Your task to perform on an android device: change keyboard looks Image 0: 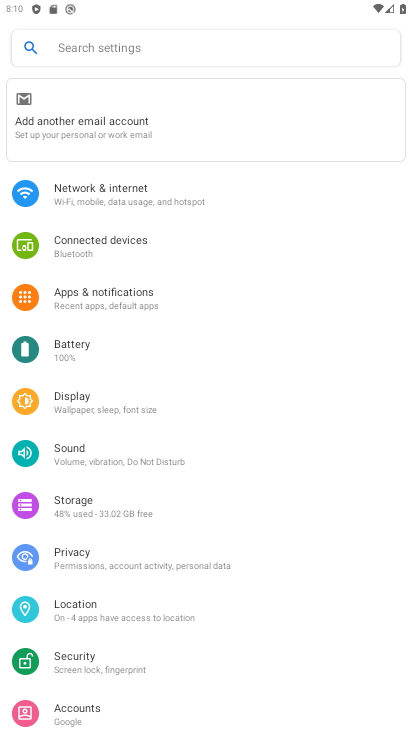
Step 0: drag from (283, 605) to (263, 119)
Your task to perform on an android device: change keyboard looks Image 1: 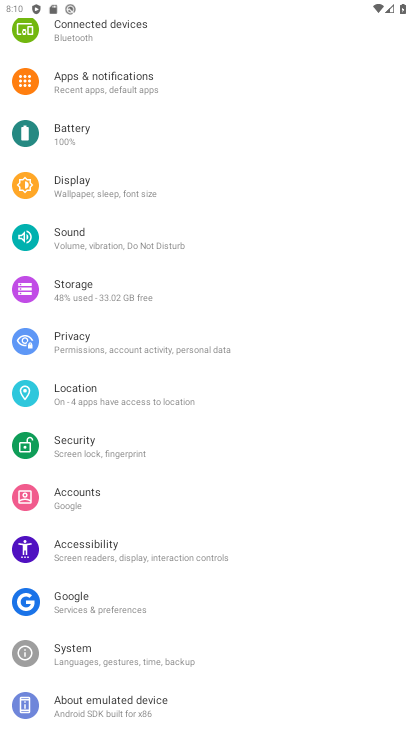
Step 1: click (133, 655)
Your task to perform on an android device: change keyboard looks Image 2: 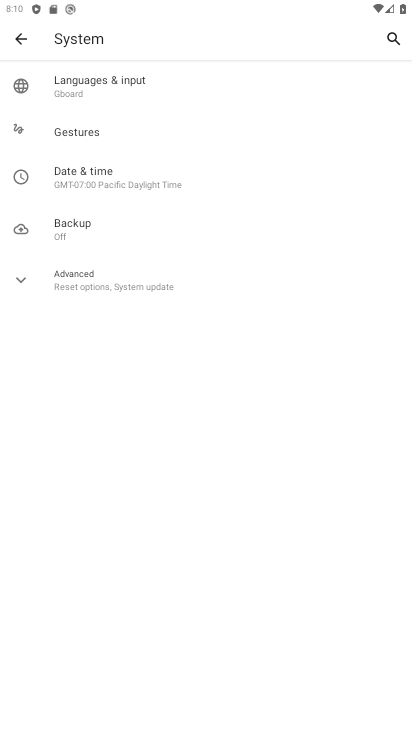
Step 2: click (29, 279)
Your task to perform on an android device: change keyboard looks Image 3: 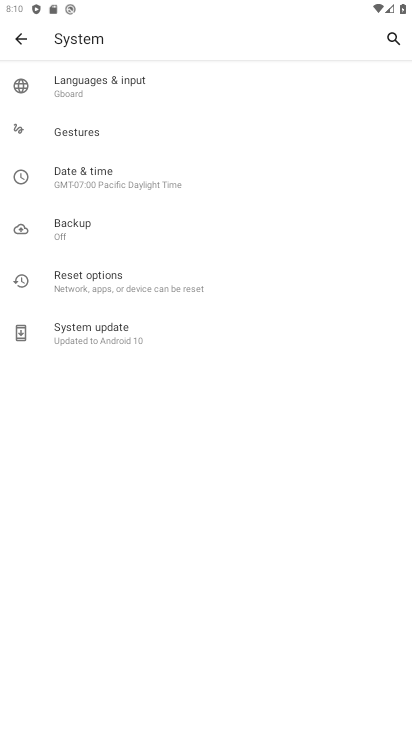
Step 3: click (65, 91)
Your task to perform on an android device: change keyboard looks Image 4: 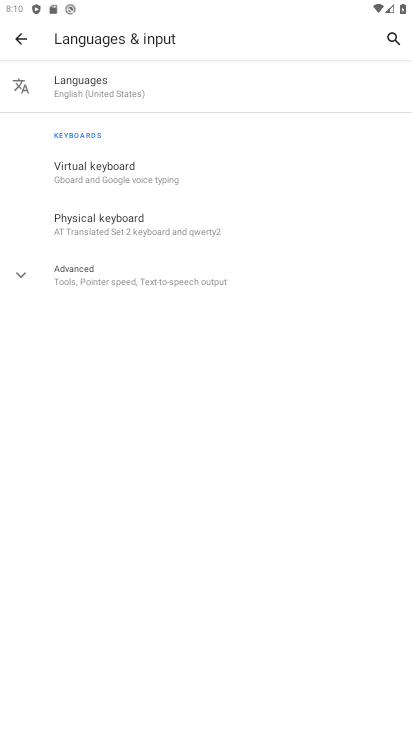
Step 4: click (3, 284)
Your task to perform on an android device: change keyboard looks Image 5: 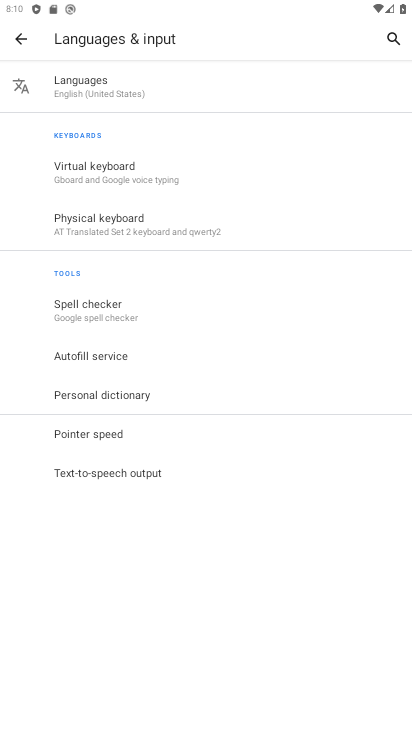
Step 5: click (131, 169)
Your task to perform on an android device: change keyboard looks Image 6: 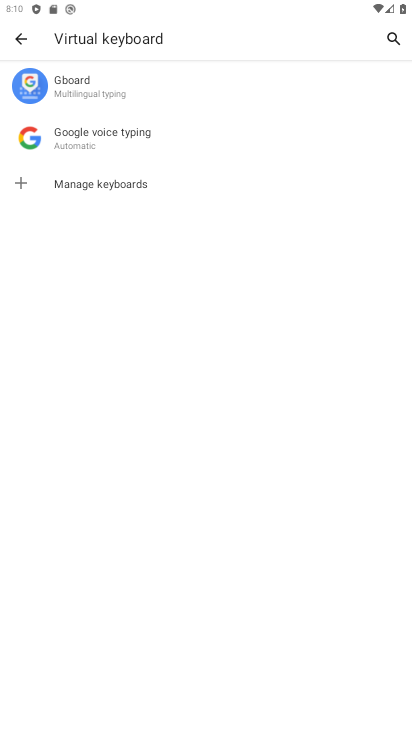
Step 6: click (115, 97)
Your task to perform on an android device: change keyboard looks Image 7: 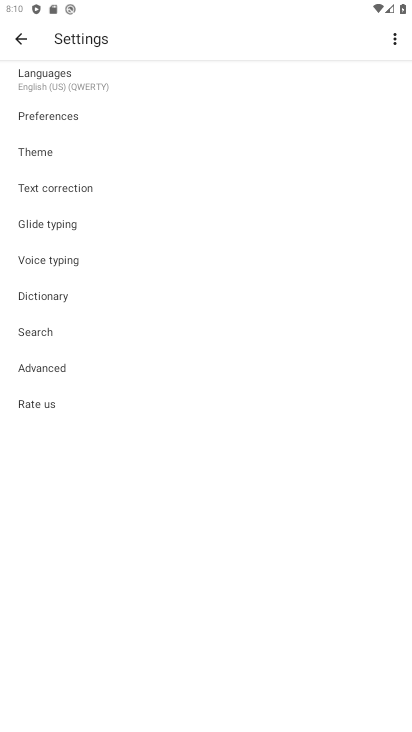
Step 7: click (59, 161)
Your task to perform on an android device: change keyboard looks Image 8: 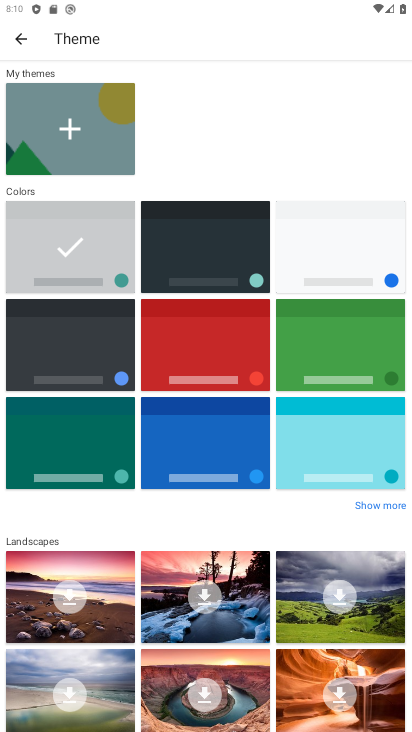
Step 8: click (166, 255)
Your task to perform on an android device: change keyboard looks Image 9: 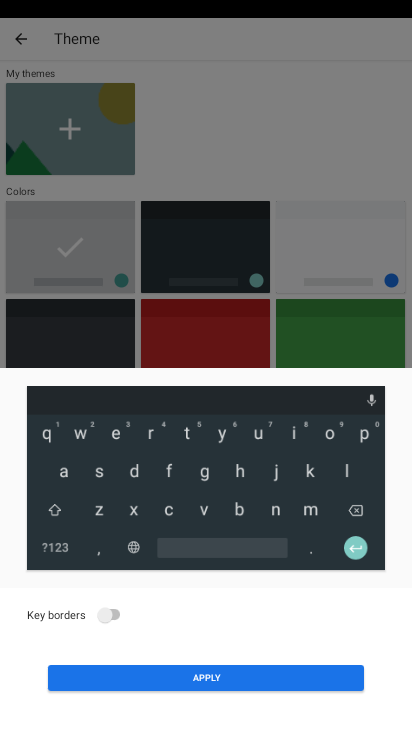
Step 9: click (175, 684)
Your task to perform on an android device: change keyboard looks Image 10: 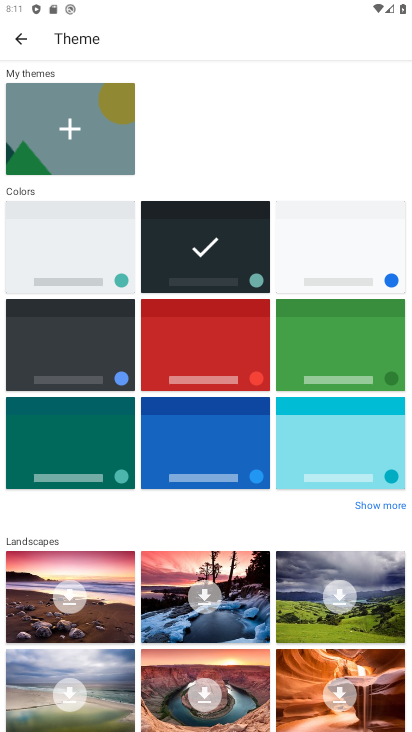
Step 10: task complete